Your task to perform on an android device: Google the capital of Panama Image 0: 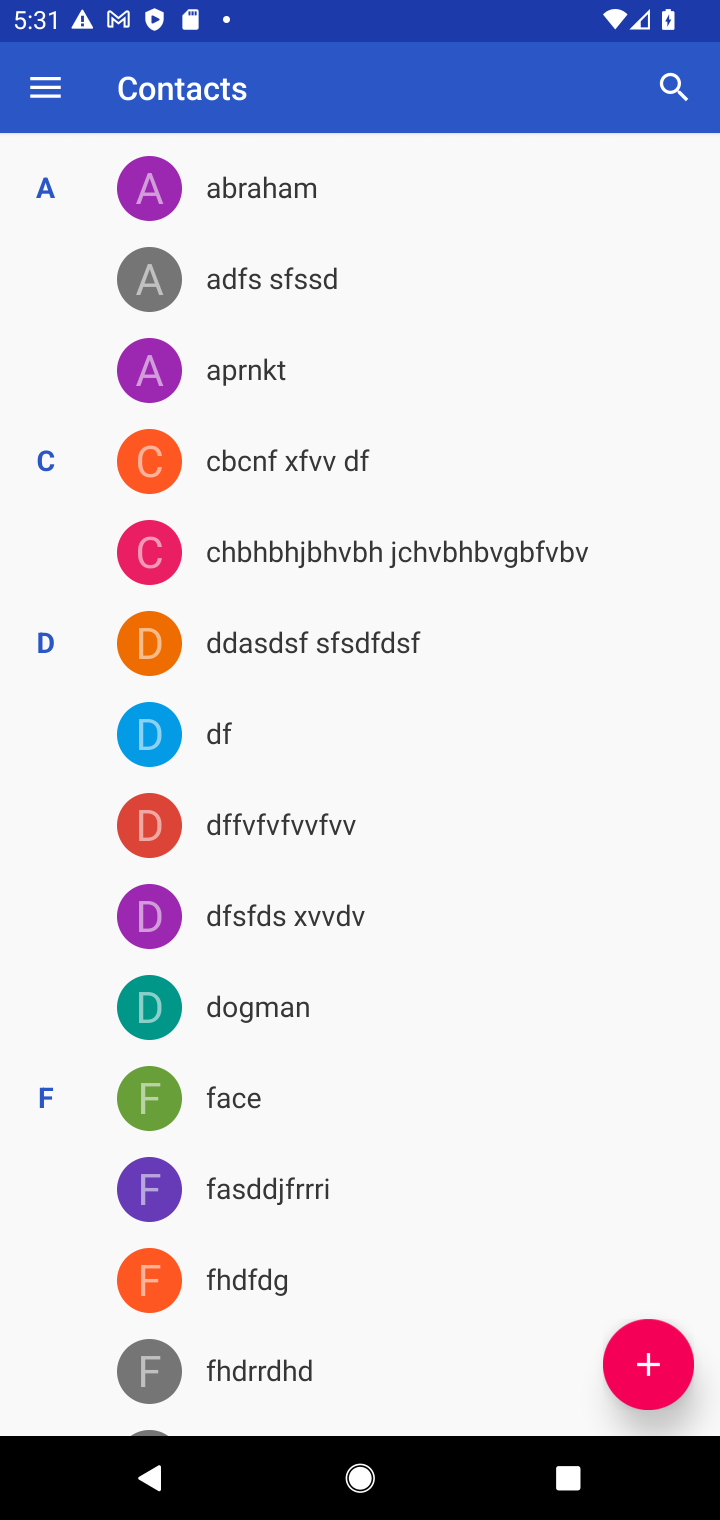
Step 0: press home button
Your task to perform on an android device: Google the capital of Panama Image 1: 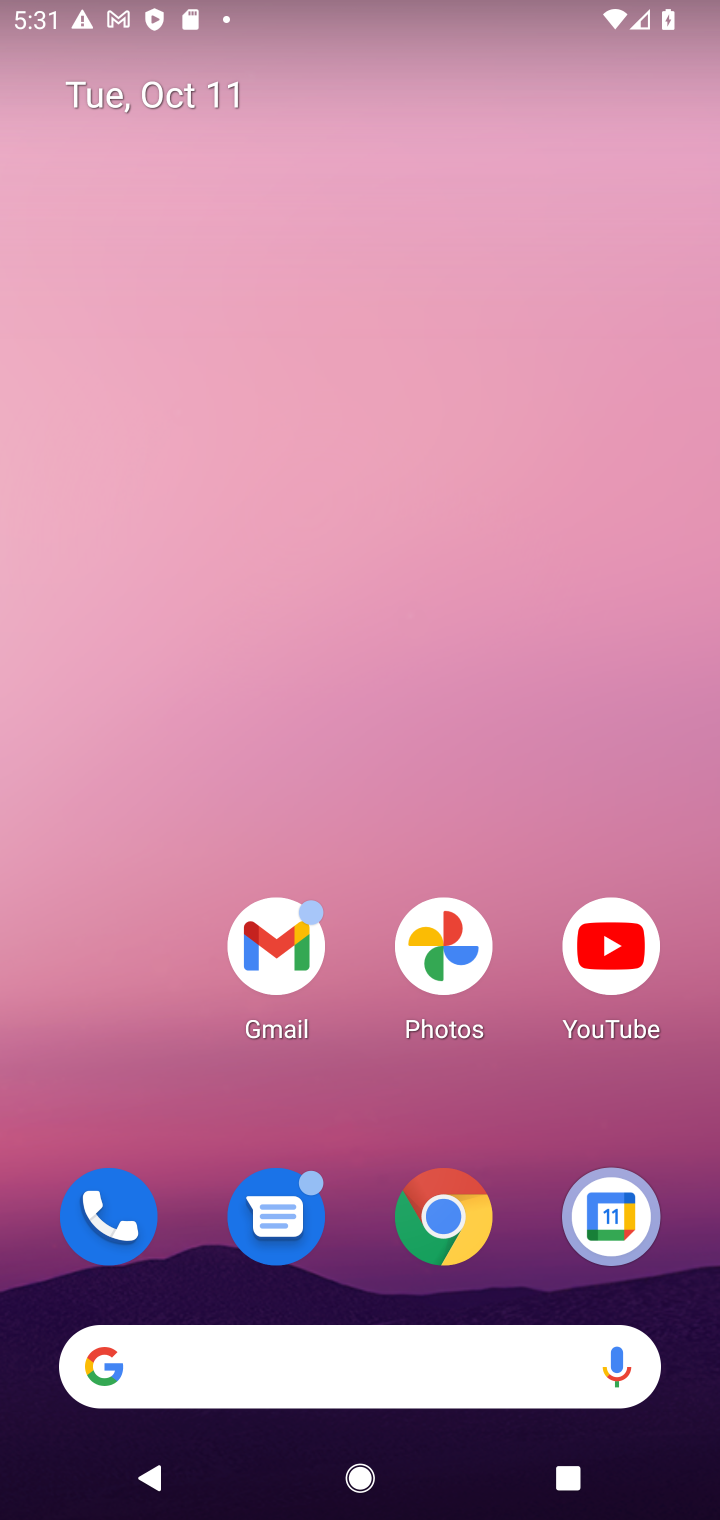
Step 1: click (443, 1217)
Your task to perform on an android device: Google the capital of Panama Image 2: 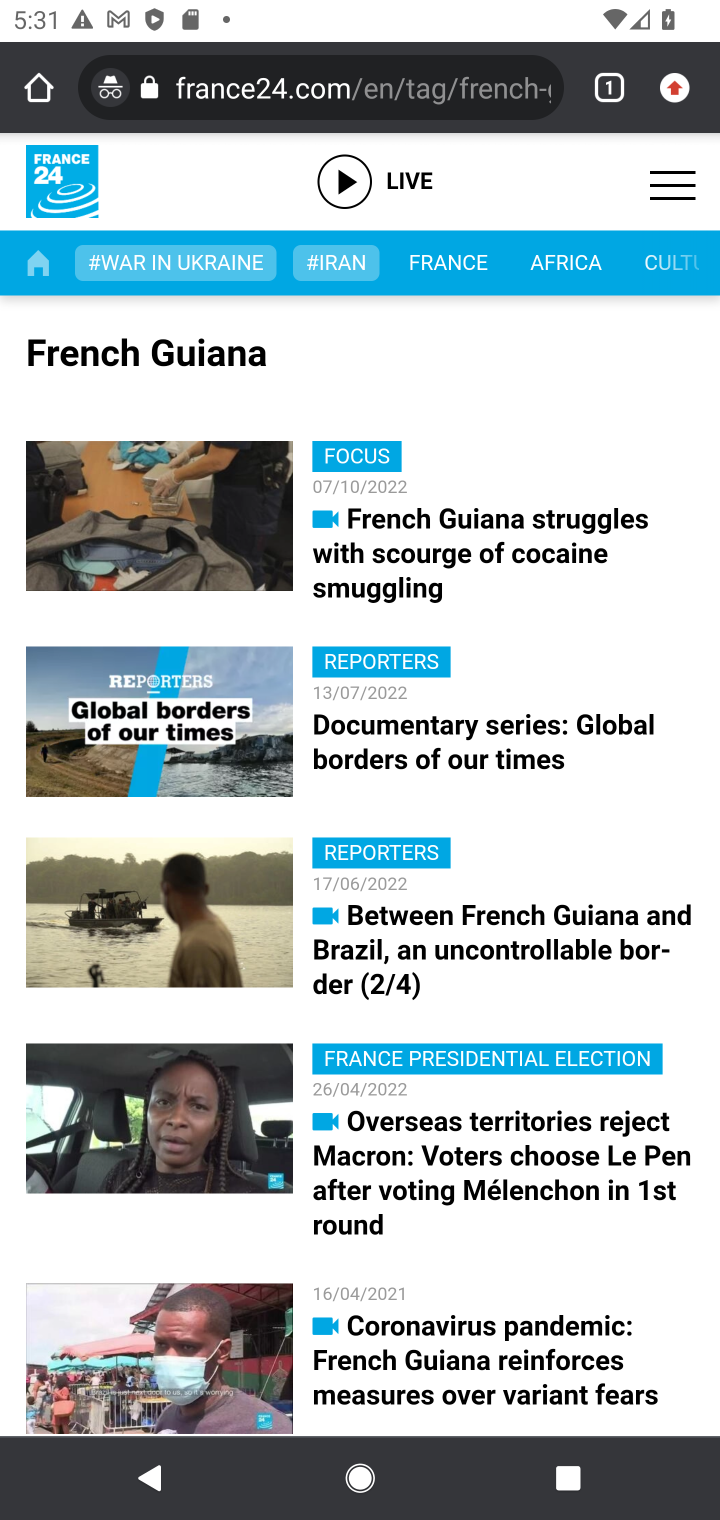
Step 2: click (393, 98)
Your task to perform on an android device: Google the capital of Panama Image 3: 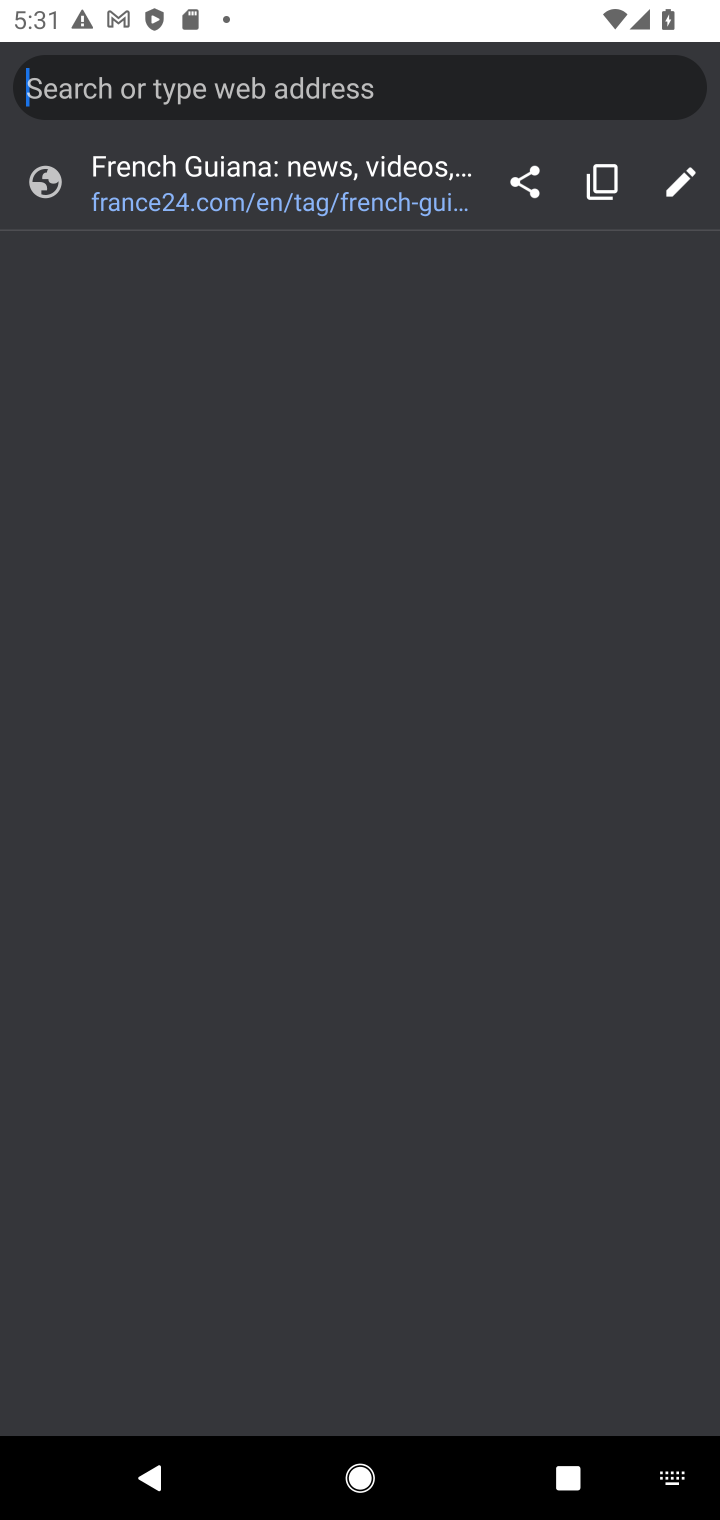
Step 3: type "Capital of Panama"
Your task to perform on an android device: Google the capital of Panama Image 4: 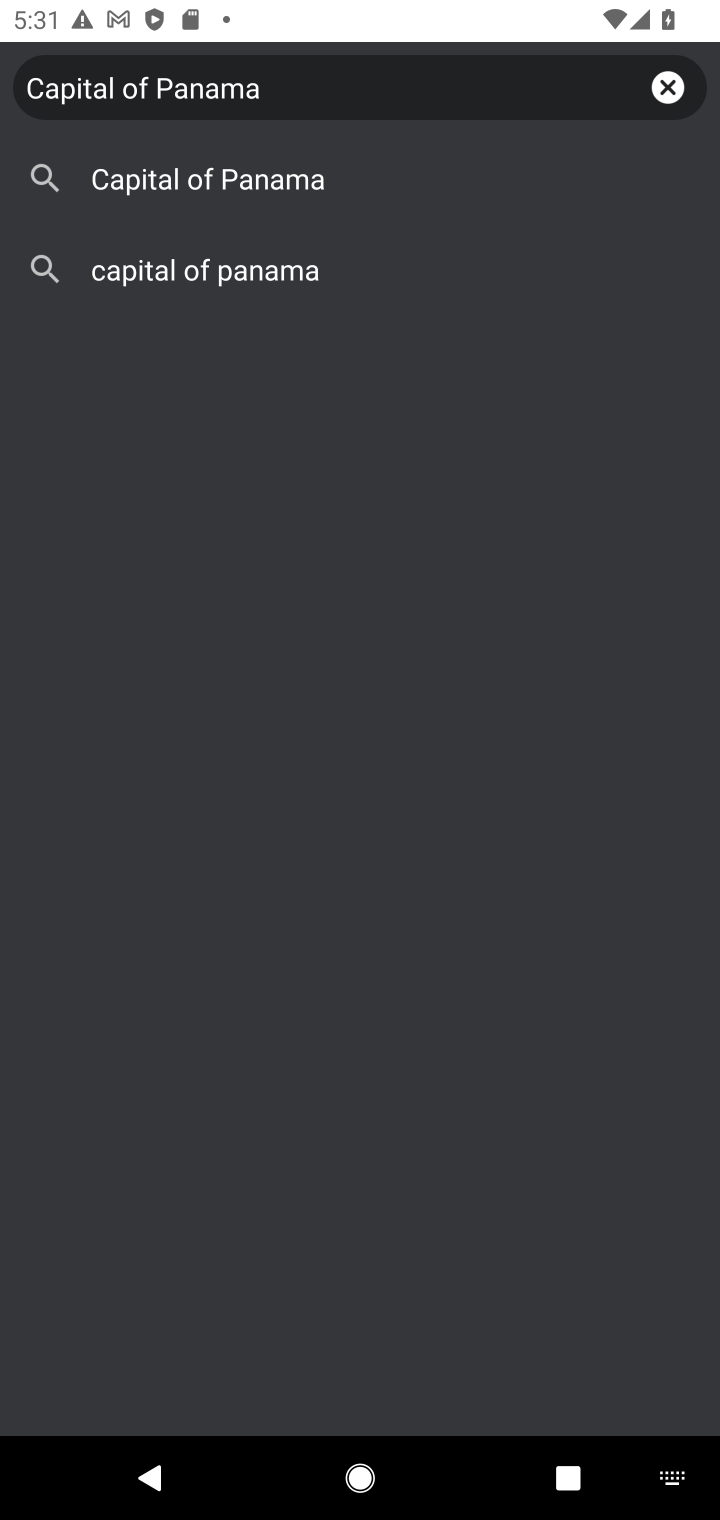
Step 4: click (282, 189)
Your task to perform on an android device: Google the capital of Panama Image 5: 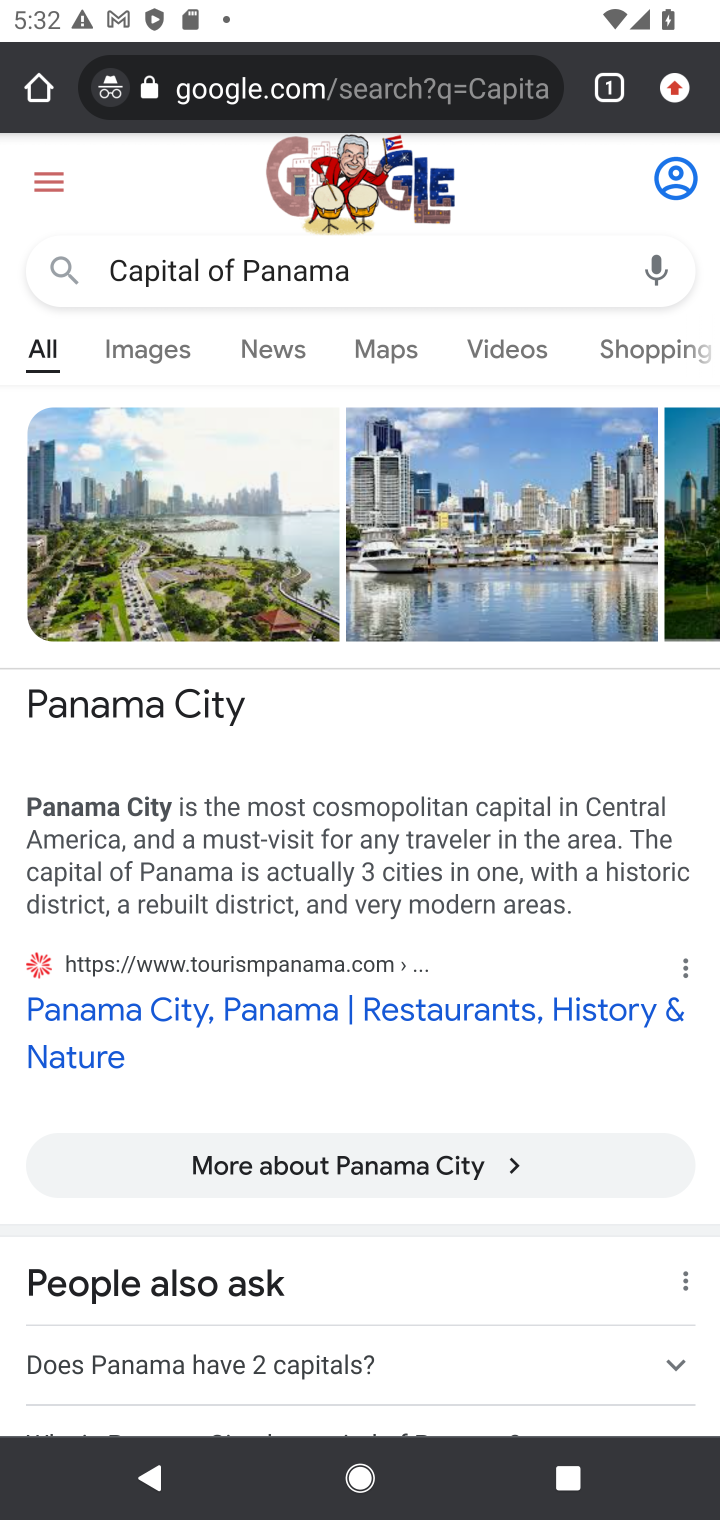
Step 5: task complete